Your task to perform on an android device: Open notification settings Image 0: 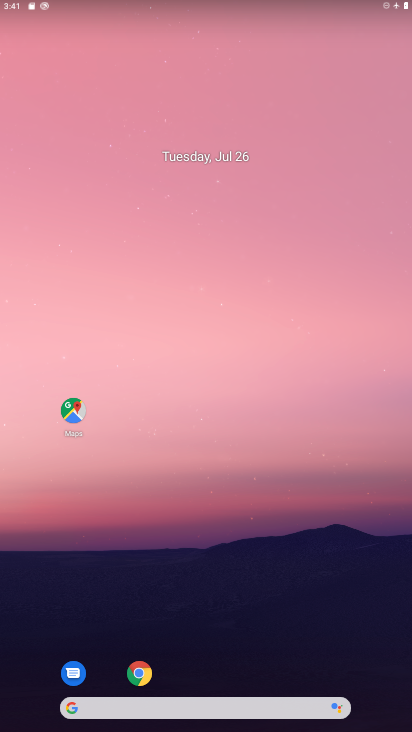
Step 0: drag from (217, 686) to (242, 106)
Your task to perform on an android device: Open notification settings Image 1: 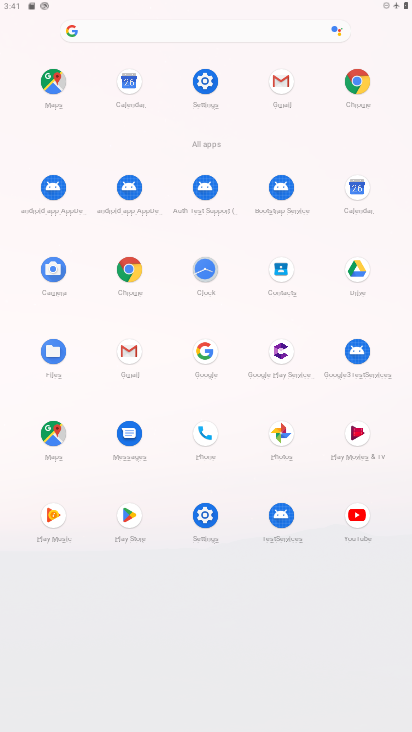
Step 1: click (203, 91)
Your task to perform on an android device: Open notification settings Image 2: 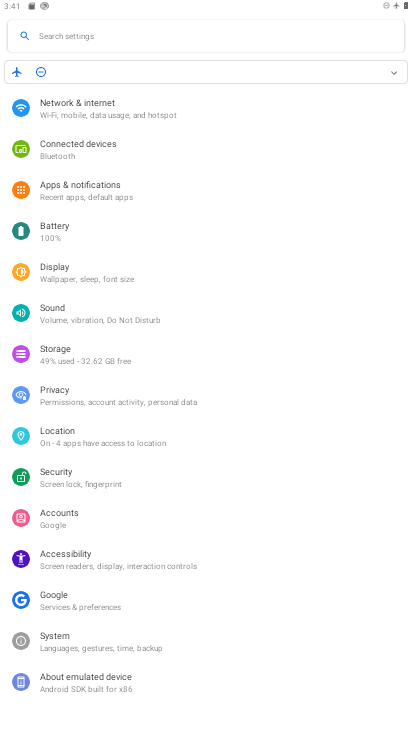
Step 2: click (69, 197)
Your task to perform on an android device: Open notification settings Image 3: 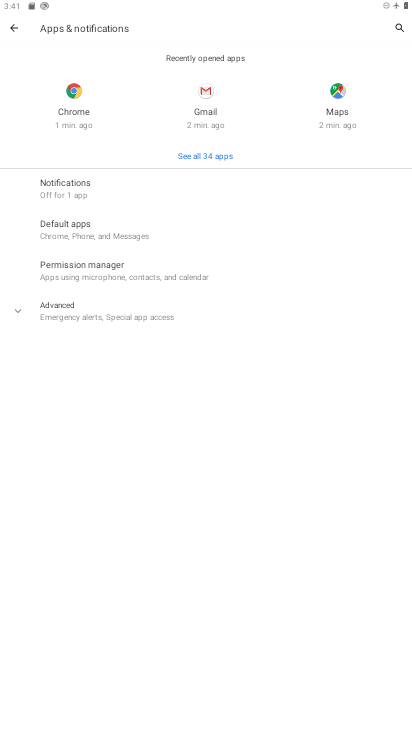
Step 3: click (70, 198)
Your task to perform on an android device: Open notification settings Image 4: 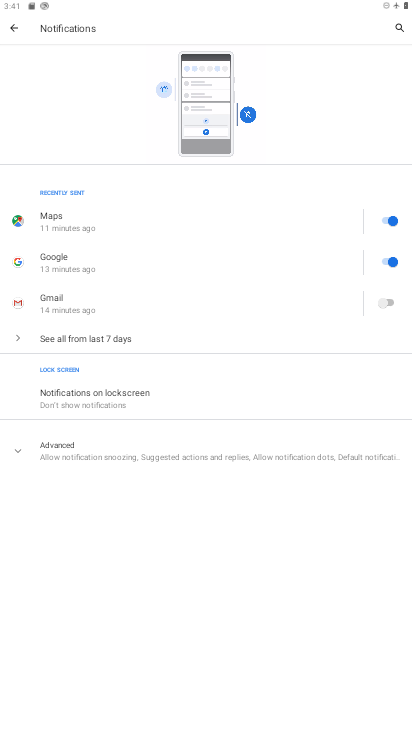
Step 4: task complete